Your task to perform on an android device: read, delete, or share a saved page in the chrome app Image 0: 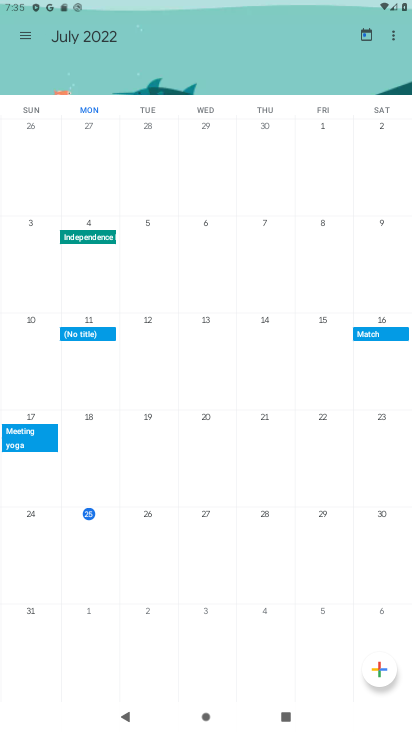
Step 0: task complete